Your task to perform on an android device: turn off translation in the chrome app Image 0: 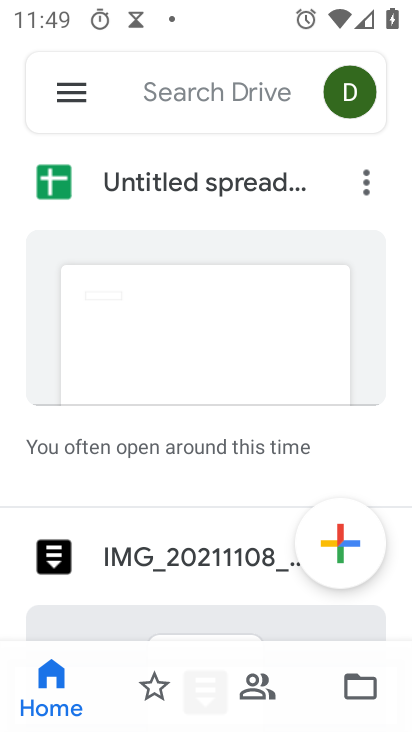
Step 0: press home button
Your task to perform on an android device: turn off translation in the chrome app Image 1: 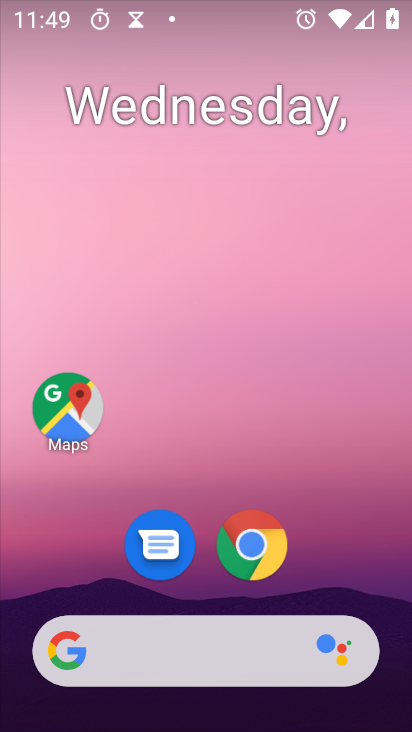
Step 1: click (248, 562)
Your task to perform on an android device: turn off translation in the chrome app Image 2: 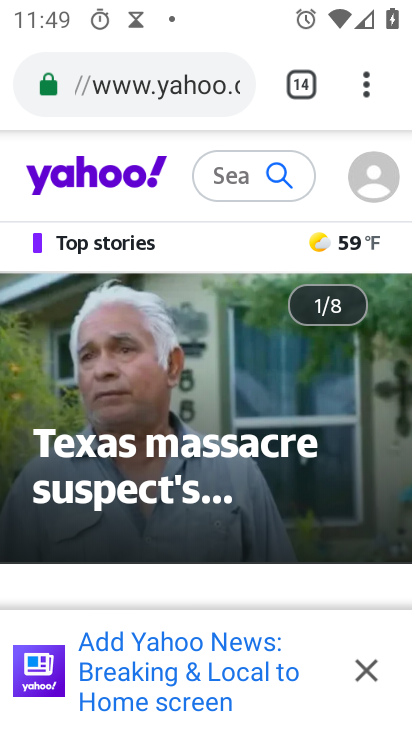
Step 2: drag from (363, 91) to (223, 613)
Your task to perform on an android device: turn off translation in the chrome app Image 3: 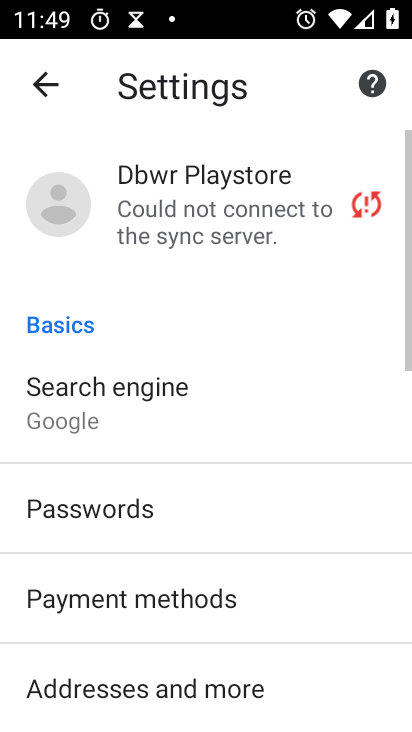
Step 3: drag from (202, 658) to (206, 177)
Your task to perform on an android device: turn off translation in the chrome app Image 4: 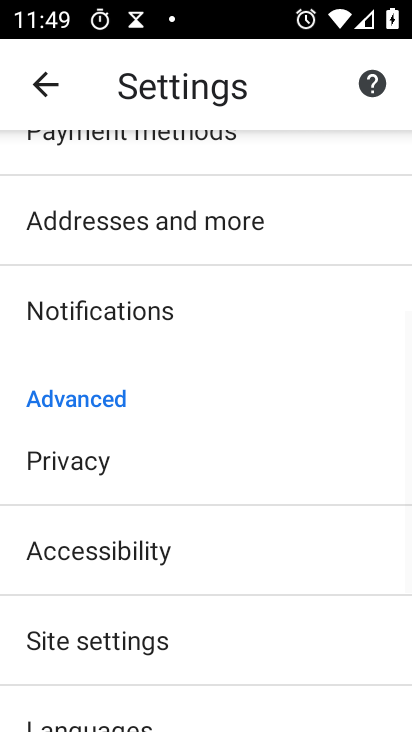
Step 4: drag from (193, 648) to (220, 402)
Your task to perform on an android device: turn off translation in the chrome app Image 5: 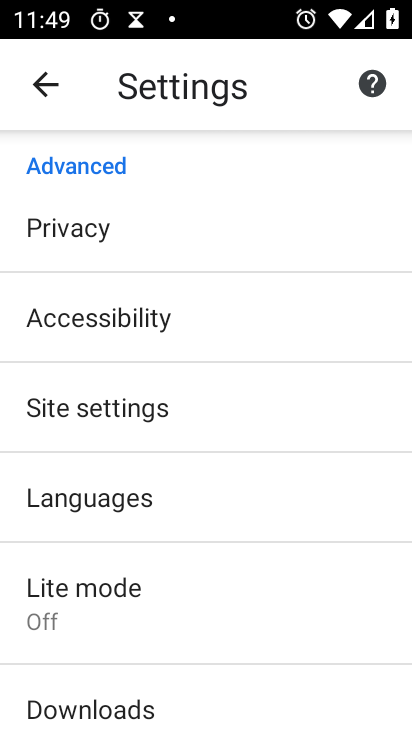
Step 5: click (120, 494)
Your task to perform on an android device: turn off translation in the chrome app Image 6: 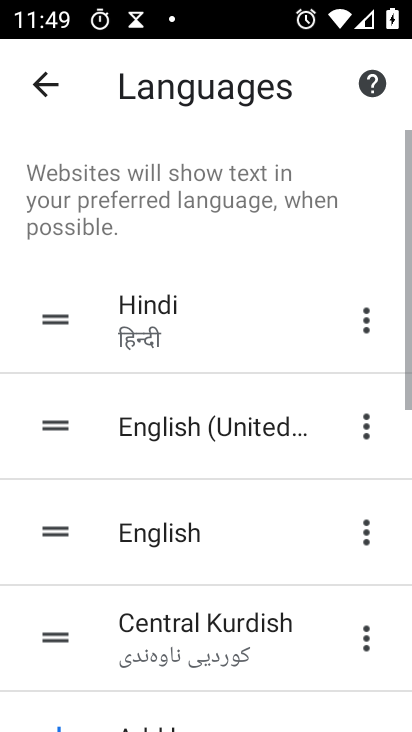
Step 6: drag from (327, 633) to (371, 331)
Your task to perform on an android device: turn off translation in the chrome app Image 7: 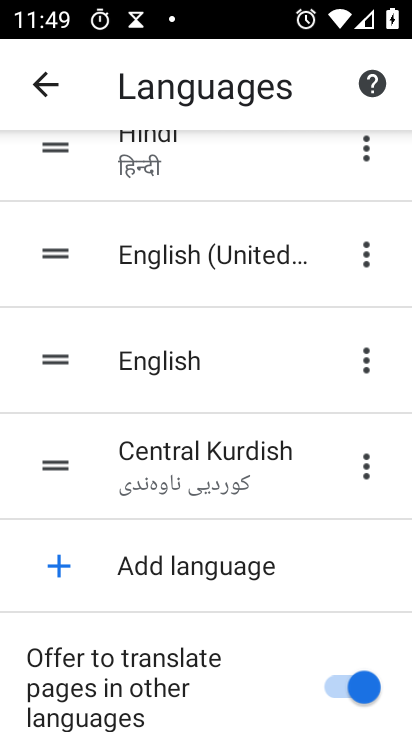
Step 7: click (327, 687)
Your task to perform on an android device: turn off translation in the chrome app Image 8: 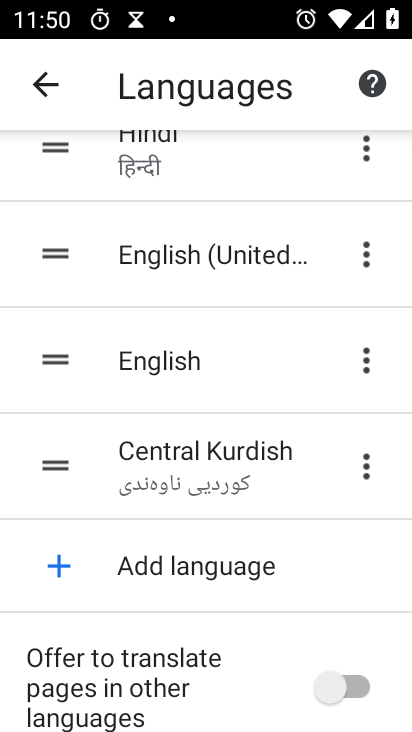
Step 8: task complete